Your task to perform on an android device: turn on improve location accuracy Image 0: 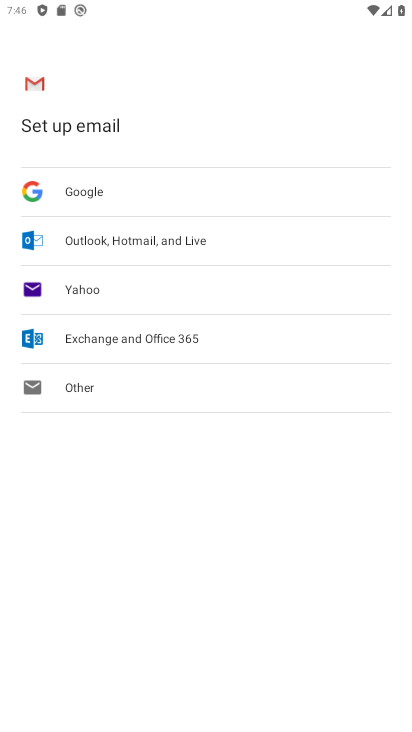
Step 0: press home button
Your task to perform on an android device: turn on improve location accuracy Image 1: 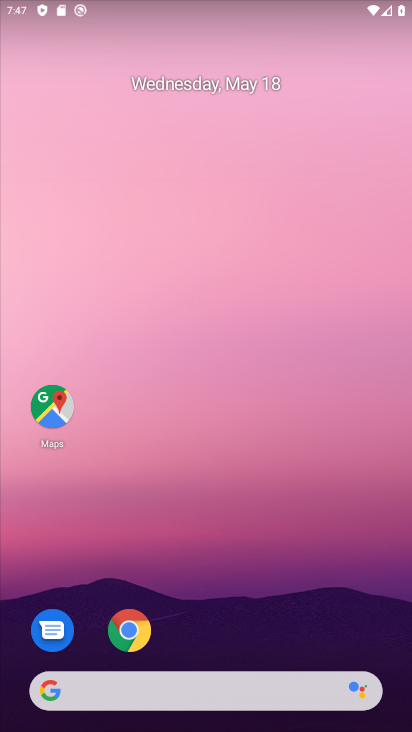
Step 1: click (58, 399)
Your task to perform on an android device: turn on improve location accuracy Image 2: 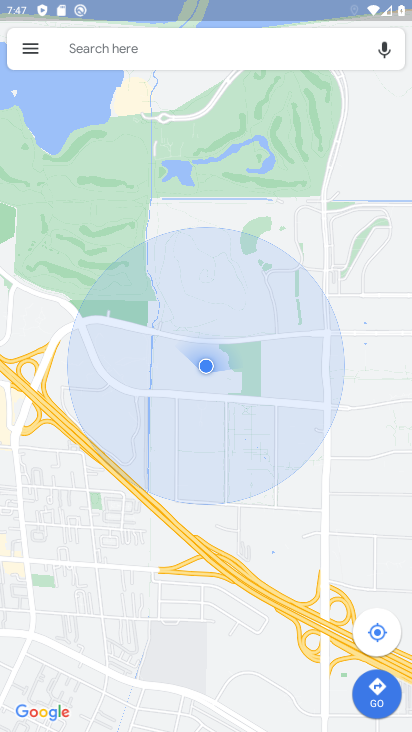
Step 2: click (28, 45)
Your task to perform on an android device: turn on improve location accuracy Image 3: 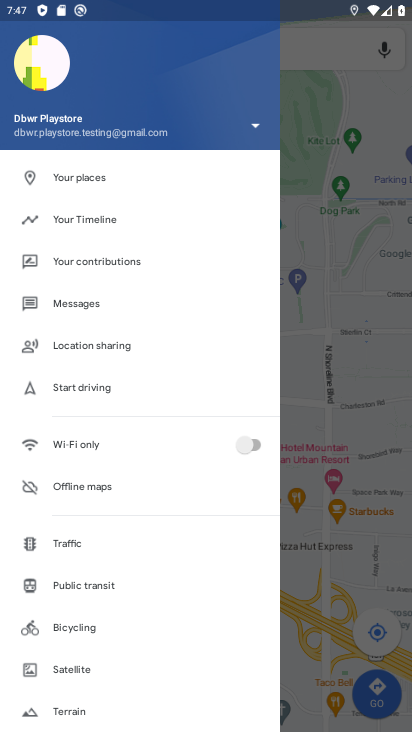
Step 3: drag from (66, 679) to (116, 11)
Your task to perform on an android device: turn on improve location accuracy Image 4: 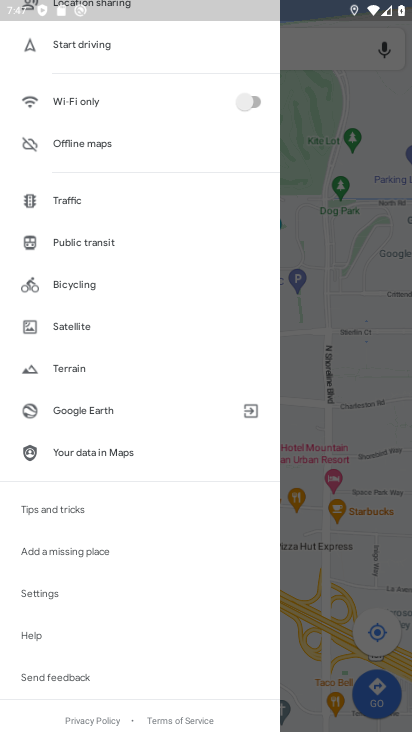
Step 4: click (70, 593)
Your task to perform on an android device: turn on improve location accuracy Image 5: 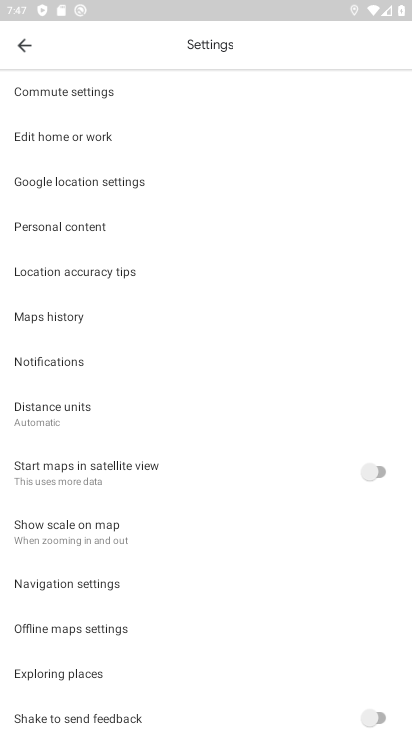
Step 5: click (116, 185)
Your task to perform on an android device: turn on improve location accuracy Image 6: 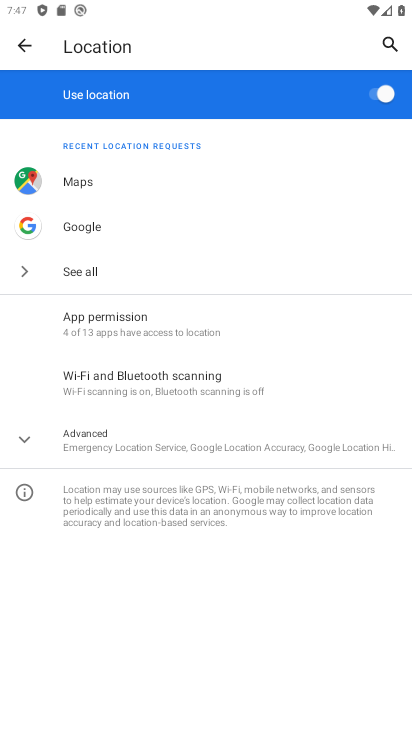
Step 6: click (168, 450)
Your task to perform on an android device: turn on improve location accuracy Image 7: 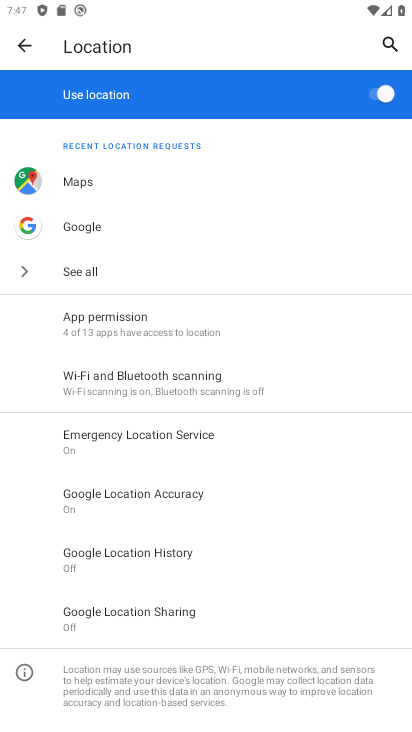
Step 7: click (174, 498)
Your task to perform on an android device: turn on improve location accuracy Image 8: 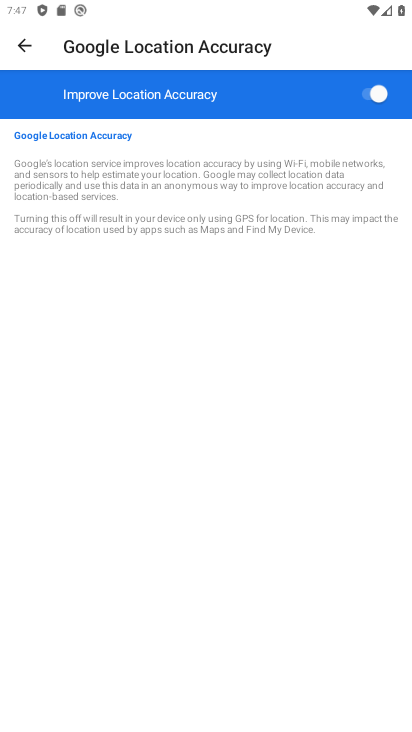
Step 8: task complete